Your task to perform on an android device: What's the weather going to be this weekend? Image 0: 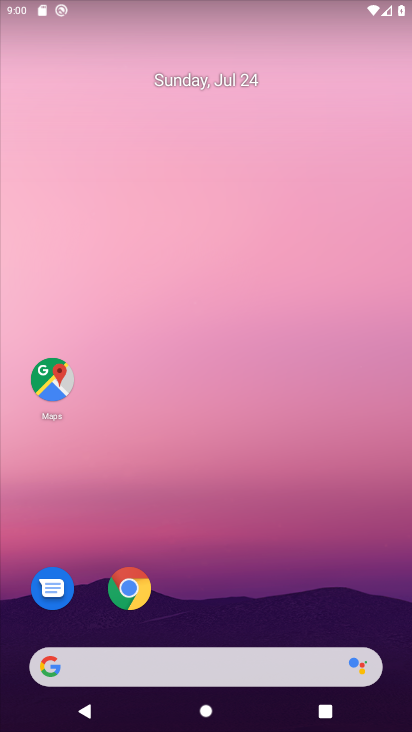
Step 0: drag from (396, 577) to (282, 26)
Your task to perform on an android device: What's the weather going to be this weekend? Image 1: 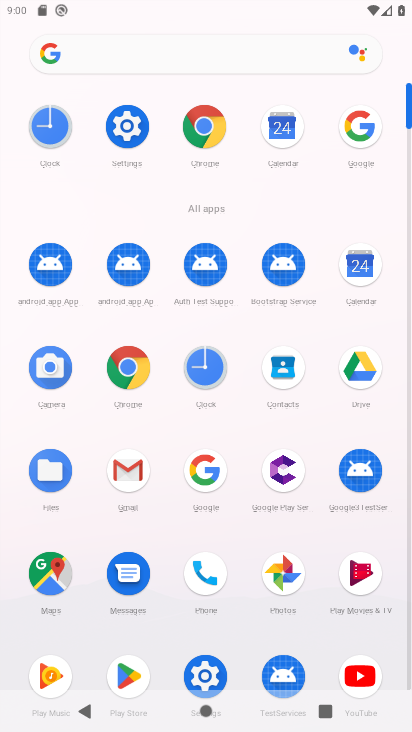
Step 1: click (215, 482)
Your task to perform on an android device: What's the weather going to be this weekend? Image 2: 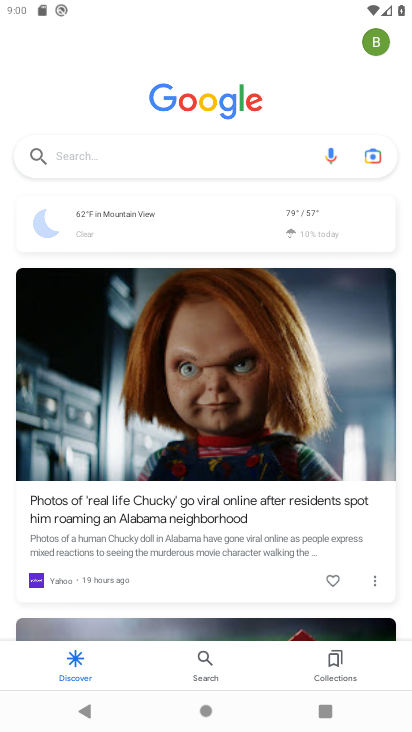
Step 2: click (309, 212)
Your task to perform on an android device: What's the weather going to be this weekend? Image 3: 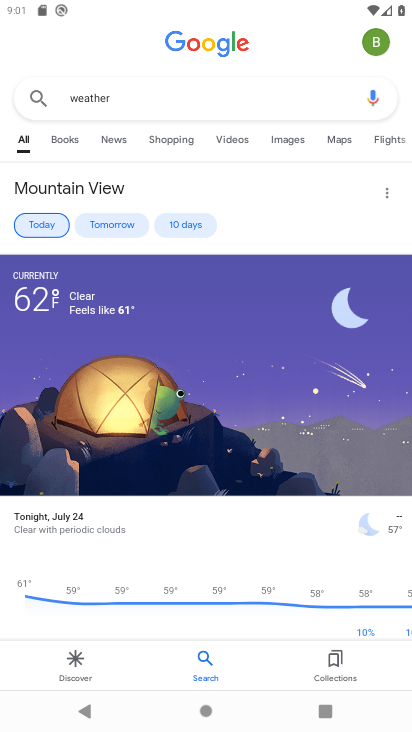
Step 3: click (189, 223)
Your task to perform on an android device: What's the weather going to be this weekend? Image 4: 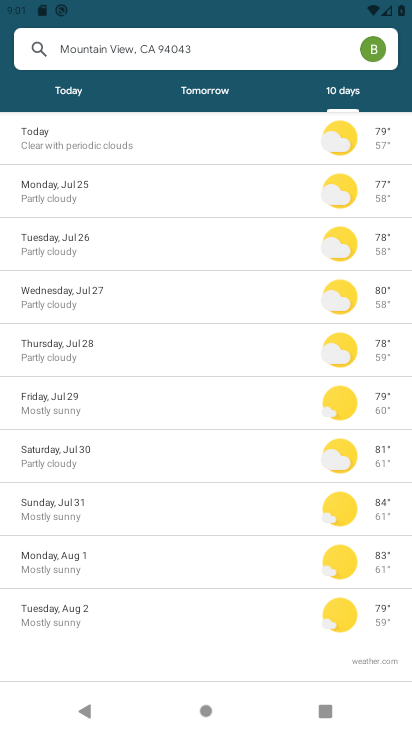
Step 4: task complete